Your task to perform on an android device: choose inbox layout in the gmail app Image 0: 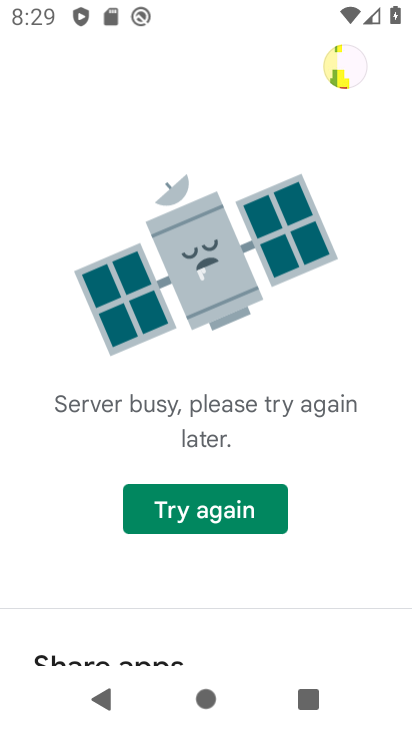
Step 0: press home button
Your task to perform on an android device: choose inbox layout in the gmail app Image 1: 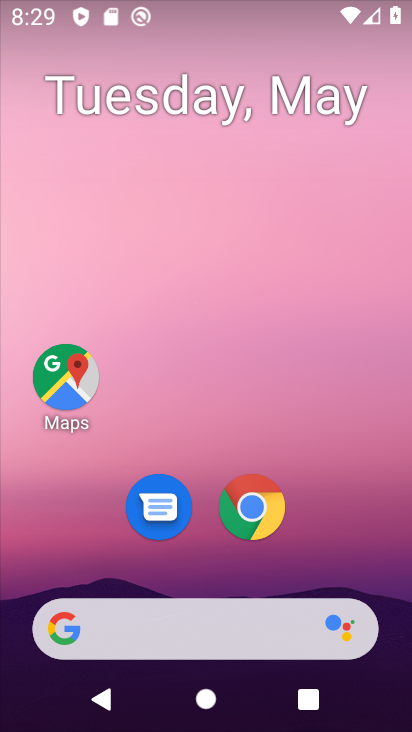
Step 1: drag from (386, 607) to (344, 272)
Your task to perform on an android device: choose inbox layout in the gmail app Image 2: 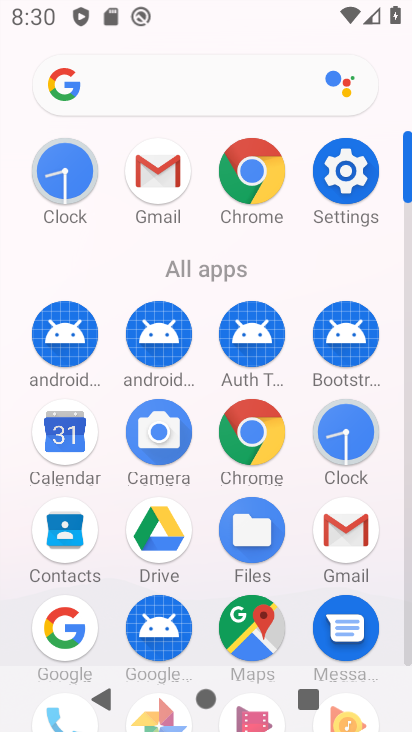
Step 2: click (171, 172)
Your task to perform on an android device: choose inbox layout in the gmail app Image 3: 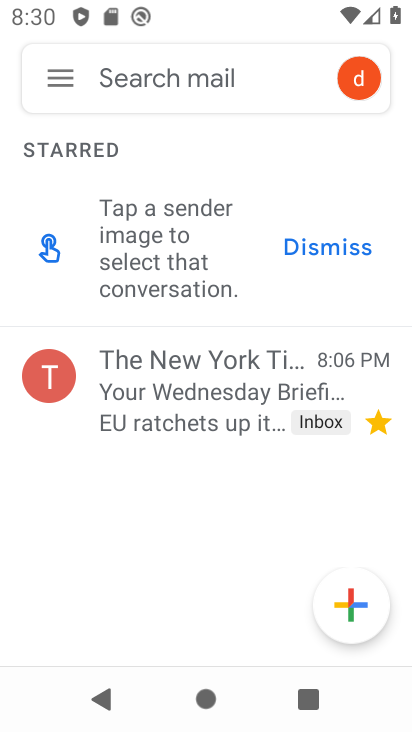
Step 3: click (68, 89)
Your task to perform on an android device: choose inbox layout in the gmail app Image 4: 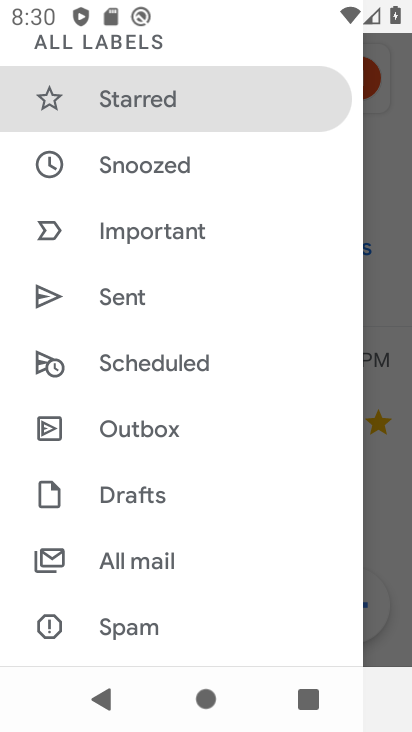
Step 4: drag from (204, 591) to (270, 183)
Your task to perform on an android device: choose inbox layout in the gmail app Image 5: 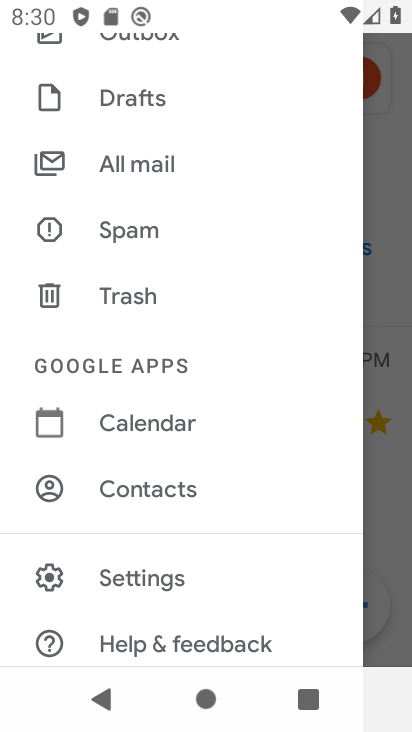
Step 5: click (224, 584)
Your task to perform on an android device: choose inbox layout in the gmail app Image 6: 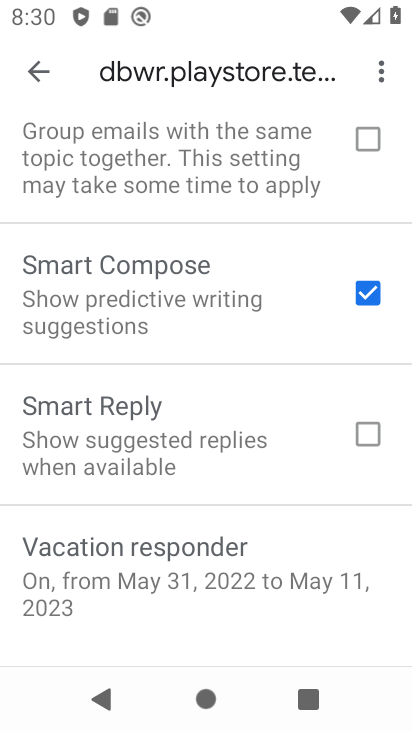
Step 6: drag from (224, 584) to (359, 713)
Your task to perform on an android device: choose inbox layout in the gmail app Image 7: 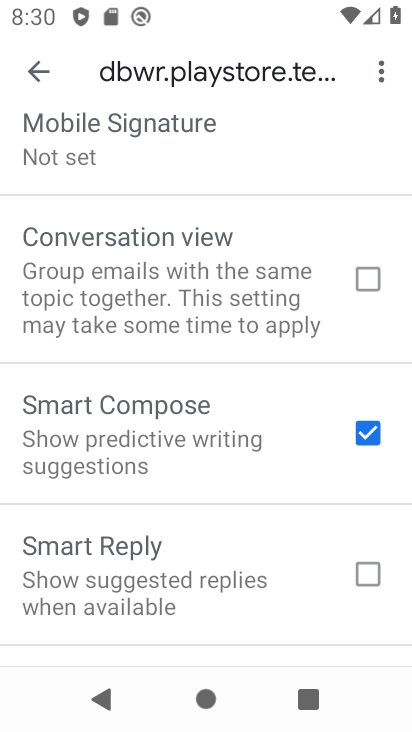
Step 7: drag from (188, 170) to (184, 618)
Your task to perform on an android device: choose inbox layout in the gmail app Image 8: 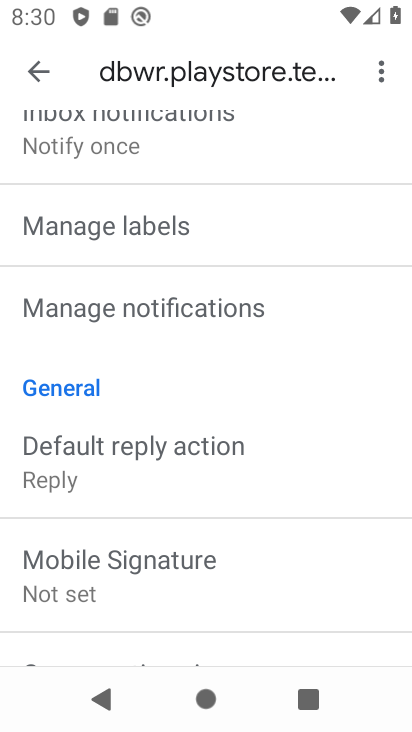
Step 8: drag from (116, 171) to (127, 588)
Your task to perform on an android device: choose inbox layout in the gmail app Image 9: 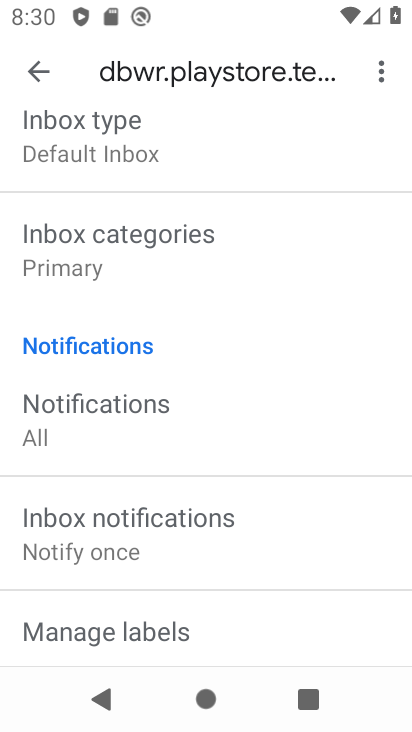
Step 9: click (94, 138)
Your task to perform on an android device: choose inbox layout in the gmail app Image 10: 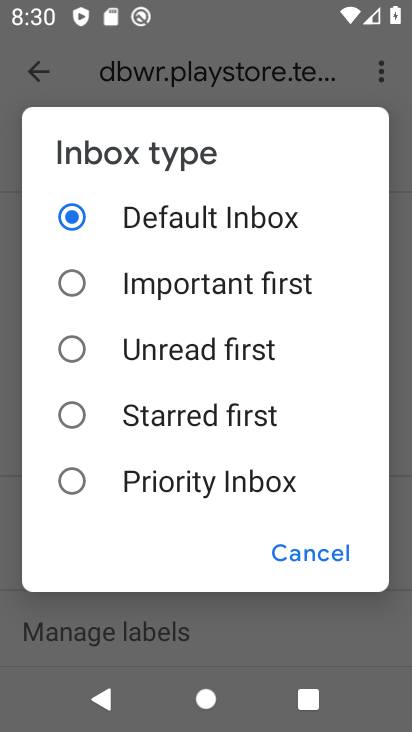
Step 10: click (179, 283)
Your task to perform on an android device: choose inbox layout in the gmail app Image 11: 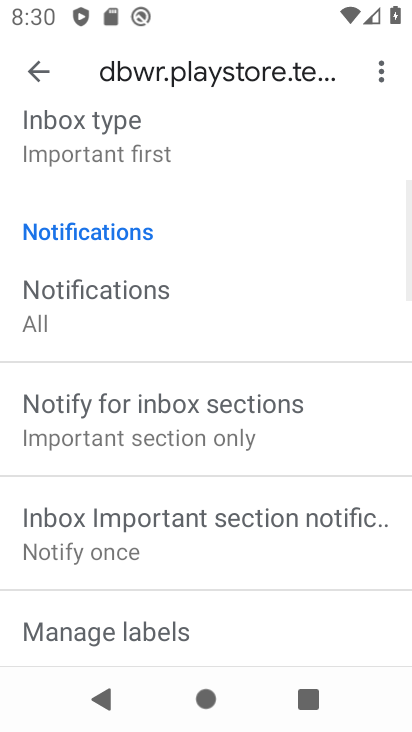
Step 11: task complete